Your task to perform on an android device: turn on data saver in the chrome app Image 0: 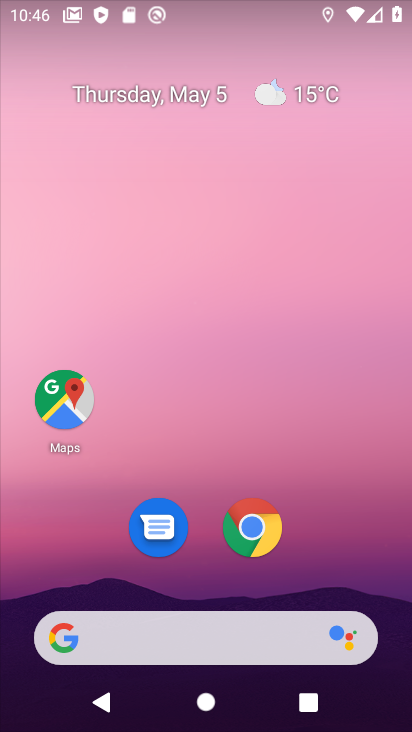
Step 0: drag from (204, 572) to (225, 176)
Your task to perform on an android device: turn on data saver in the chrome app Image 1: 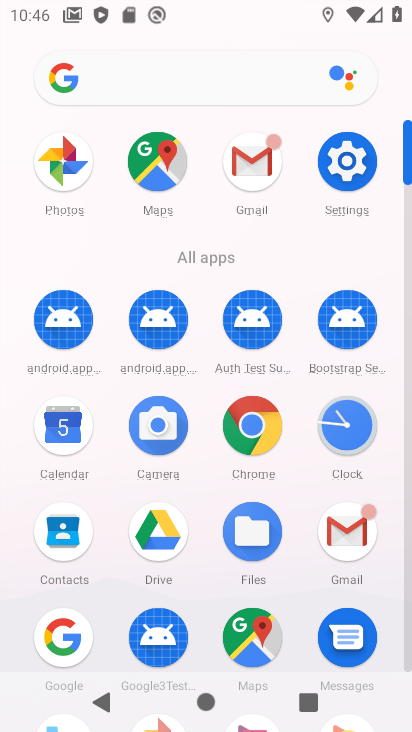
Step 1: click (232, 428)
Your task to perform on an android device: turn on data saver in the chrome app Image 2: 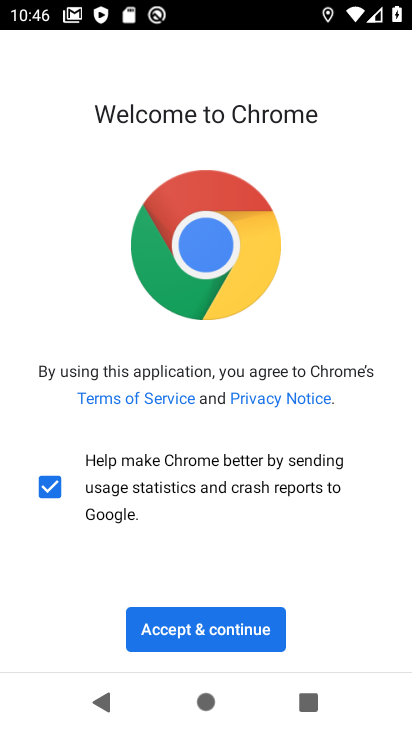
Step 2: click (254, 638)
Your task to perform on an android device: turn on data saver in the chrome app Image 3: 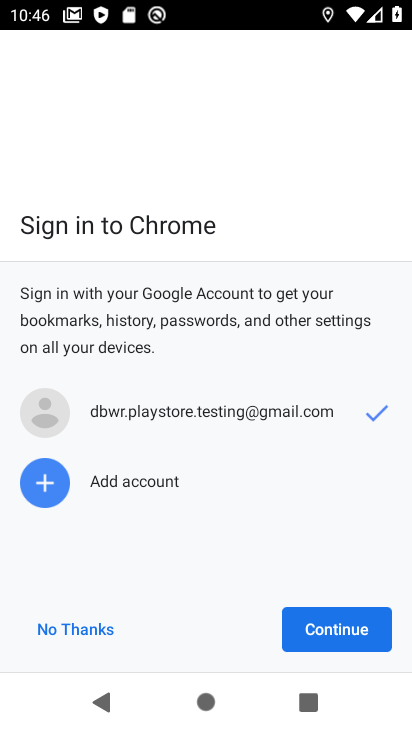
Step 3: click (320, 633)
Your task to perform on an android device: turn on data saver in the chrome app Image 4: 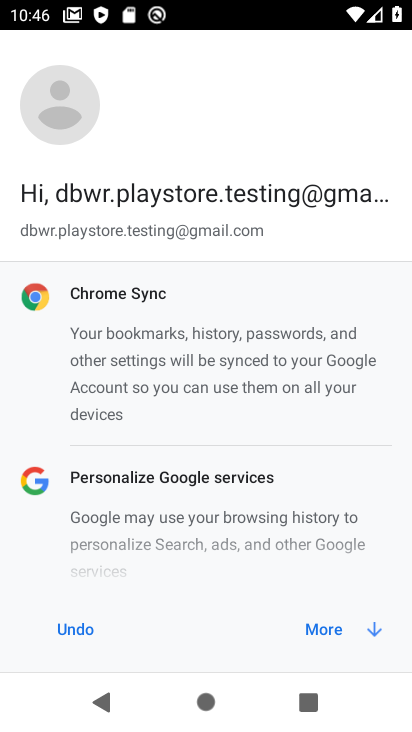
Step 4: click (321, 634)
Your task to perform on an android device: turn on data saver in the chrome app Image 5: 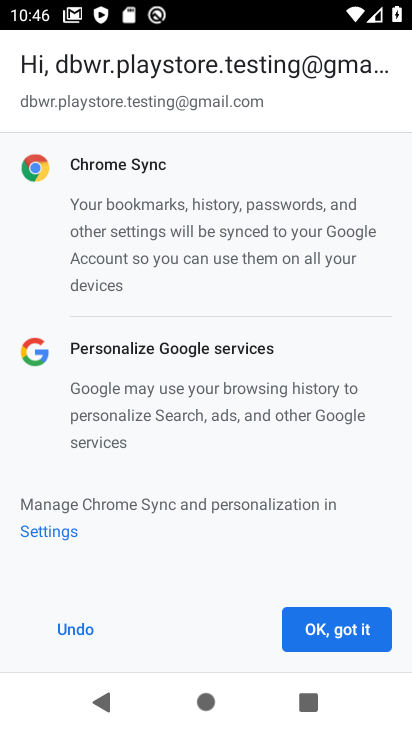
Step 5: click (316, 639)
Your task to perform on an android device: turn on data saver in the chrome app Image 6: 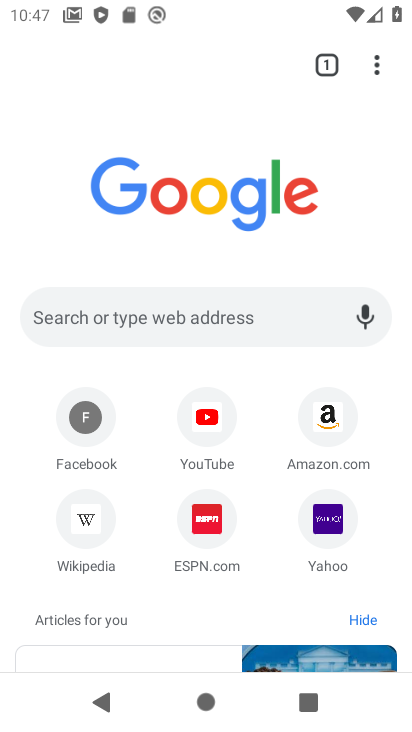
Step 6: click (368, 51)
Your task to perform on an android device: turn on data saver in the chrome app Image 7: 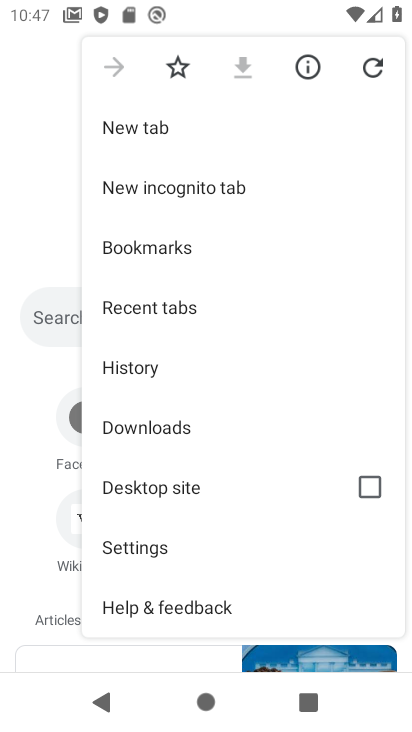
Step 7: click (138, 546)
Your task to perform on an android device: turn on data saver in the chrome app Image 8: 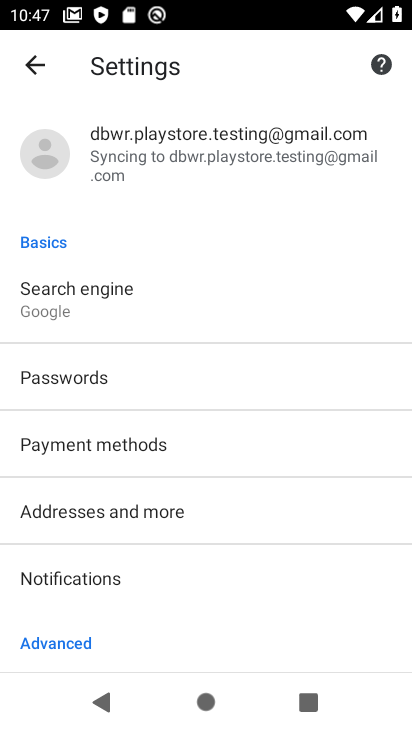
Step 8: click (122, 566)
Your task to perform on an android device: turn on data saver in the chrome app Image 9: 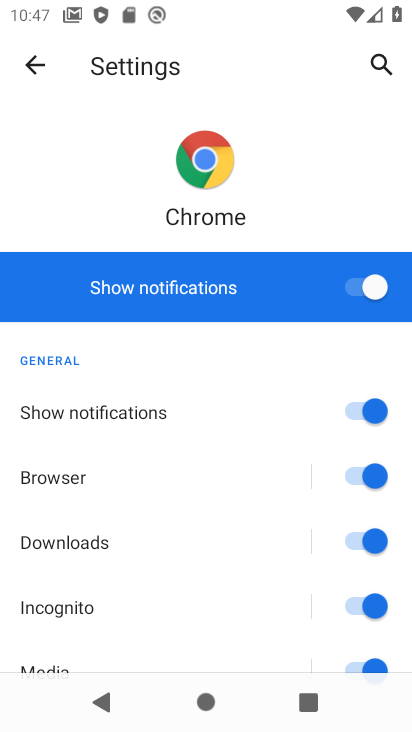
Step 9: click (43, 82)
Your task to perform on an android device: turn on data saver in the chrome app Image 10: 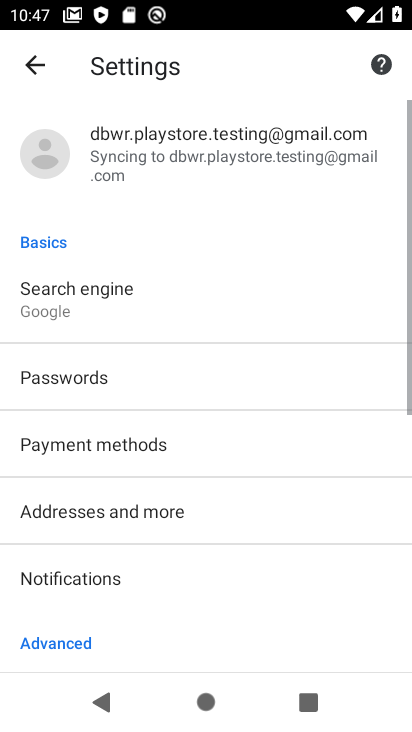
Step 10: drag from (228, 573) to (231, 79)
Your task to perform on an android device: turn on data saver in the chrome app Image 11: 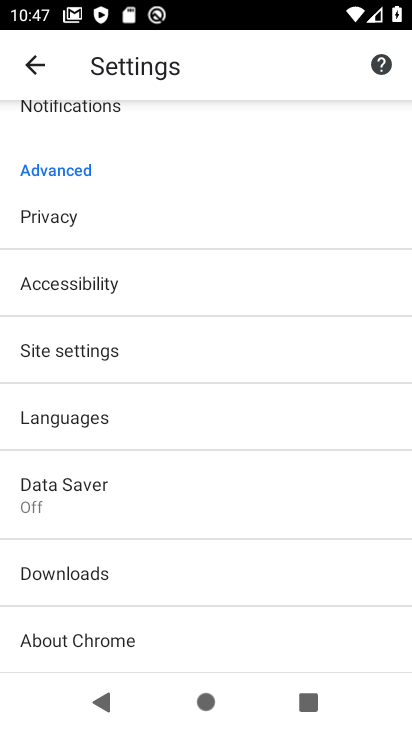
Step 11: click (112, 519)
Your task to perform on an android device: turn on data saver in the chrome app Image 12: 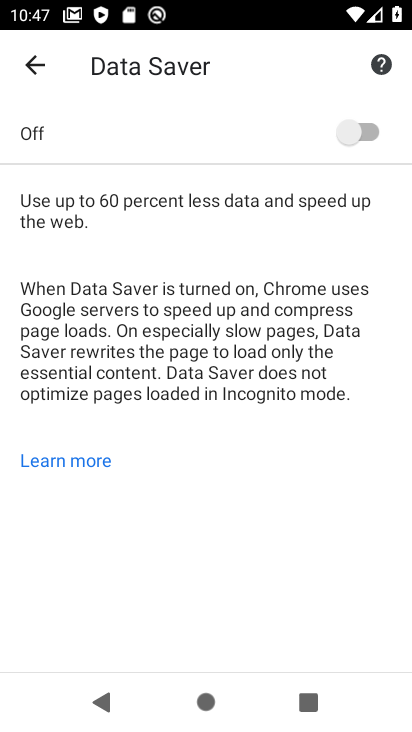
Step 12: click (368, 129)
Your task to perform on an android device: turn on data saver in the chrome app Image 13: 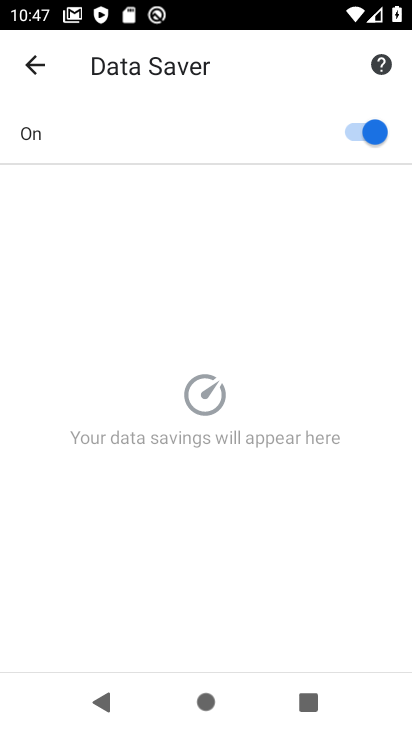
Step 13: task complete